Your task to perform on an android device: Open location settings Image 0: 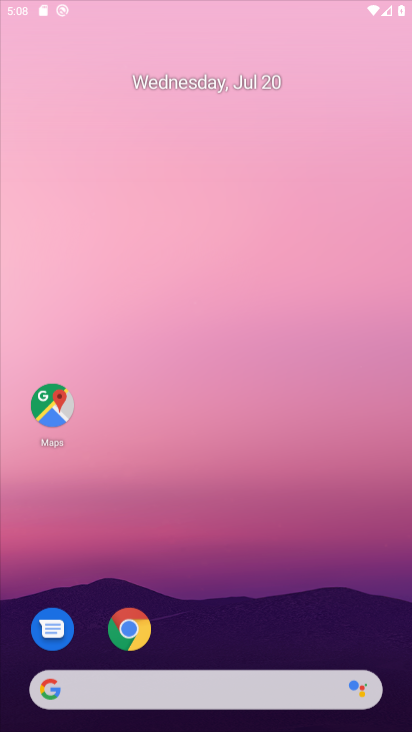
Step 0: press home button
Your task to perform on an android device: Open location settings Image 1: 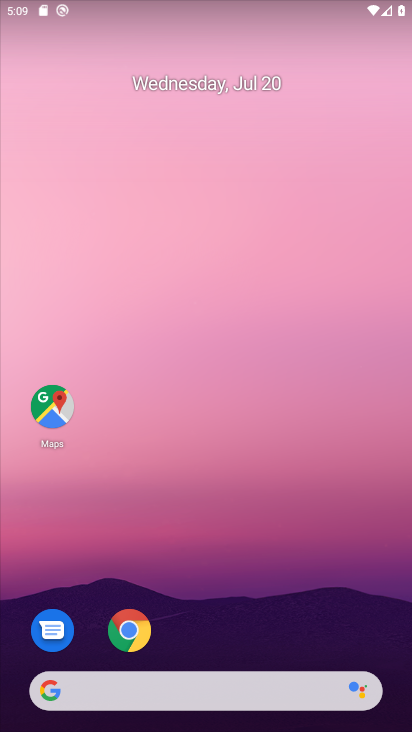
Step 1: drag from (233, 617) to (362, 1)
Your task to perform on an android device: Open location settings Image 2: 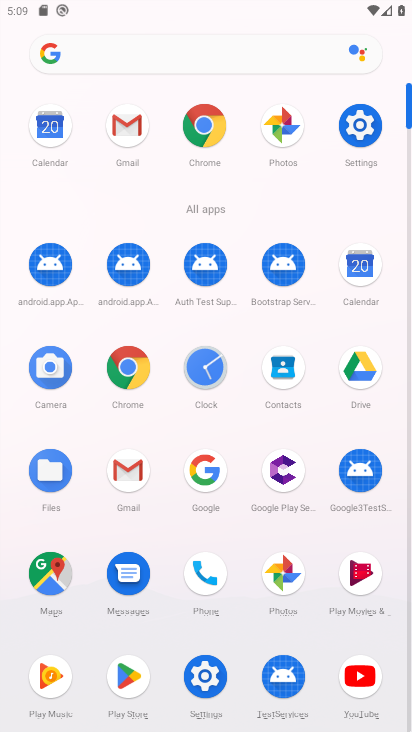
Step 2: click (360, 133)
Your task to perform on an android device: Open location settings Image 3: 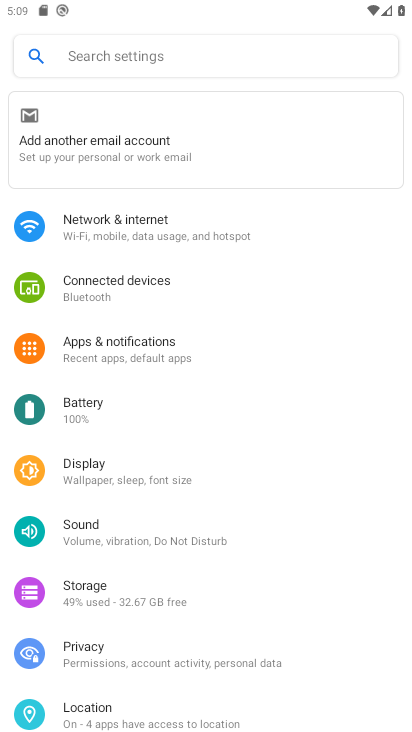
Step 3: click (79, 710)
Your task to perform on an android device: Open location settings Image 4: 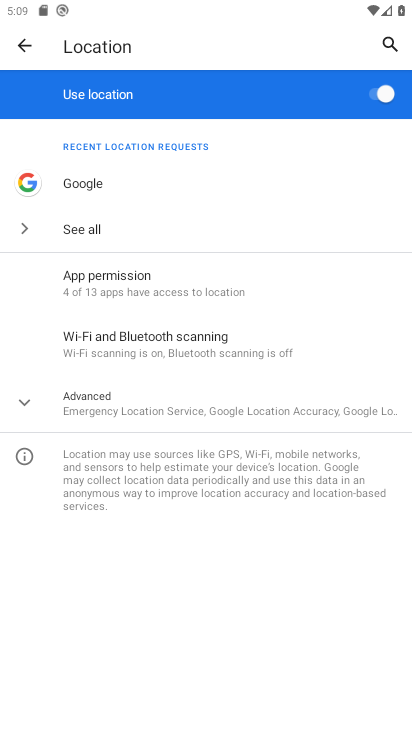
Step 4: task complete